Your task to perform on an android device: toggle pop-ups in chrome Image 0: 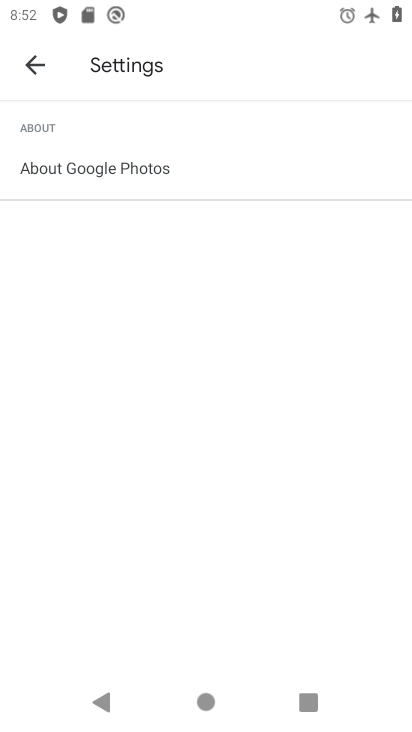
Step 0: press home button
Your task to perform on an android device: toggle pop-ups in chrome Image 1: 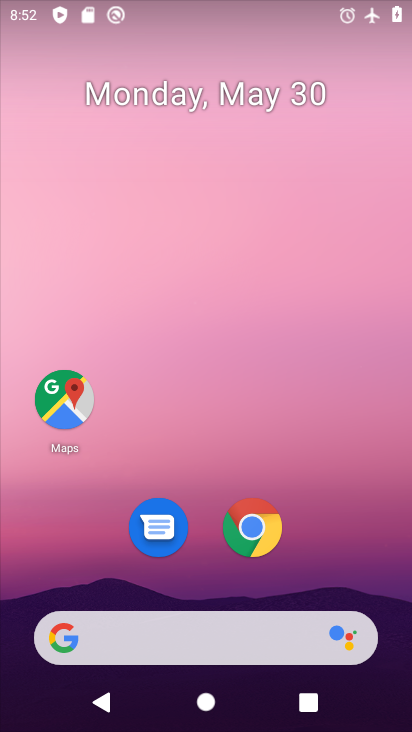
Step 1: drag from (268, 614) to (388, 9)
Your task to perform on an android device: toggle pop-ups in chrome Image 2: 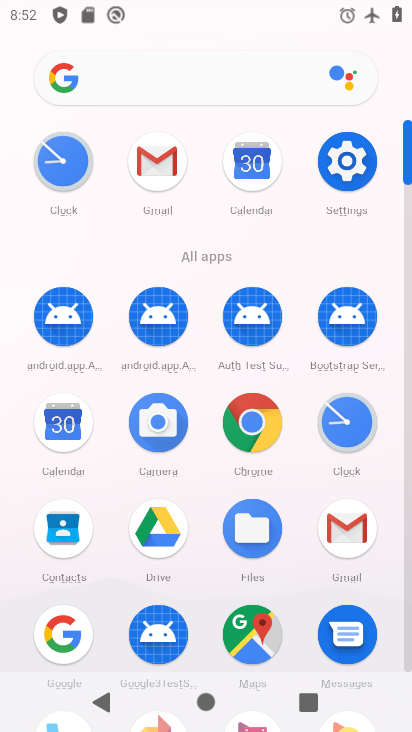
Step 2: click (258, 409)
Your task to perform on an android device: toggle pop-ups in chrome Image 3: 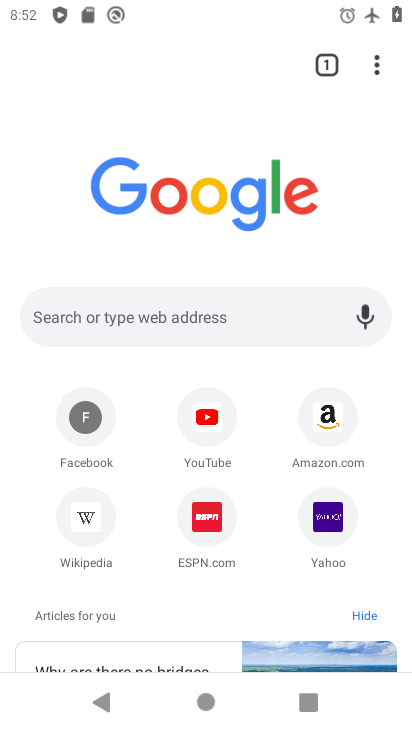
Step 3: click (382, 45)
Your task to perform on an android device: toggle pop-ups in chrome Image 4: 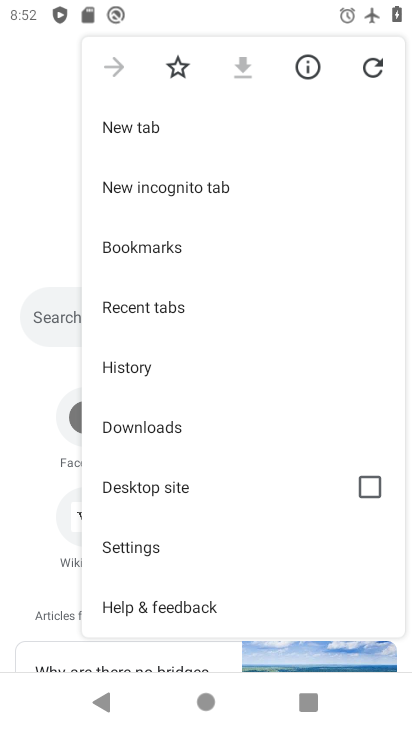
Step 4: click (146, 548)
Your task to perform on an android device: toggle pop-ups in chrome Image 5: 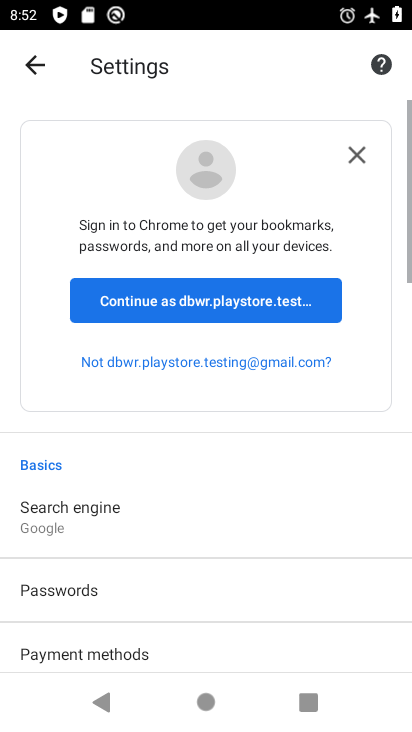
Step 5: drag from (143, 660) to (214, 210)
Your task to perform on an android device: toggle pop-ups in chrome Image 6: 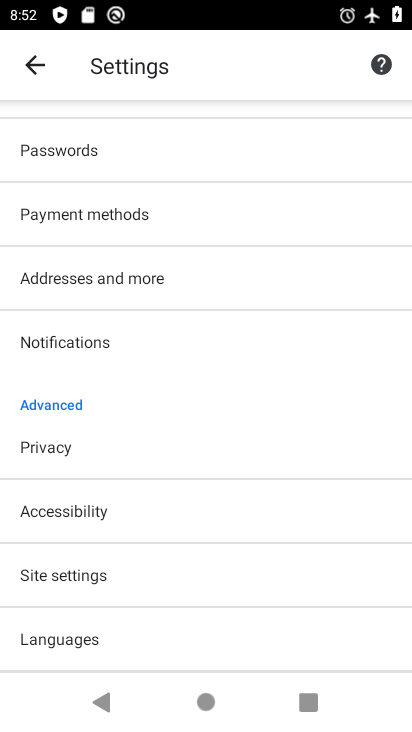
Step 6: click (140, 577)
Your task to perform on an android device: toggle pop-ups in chrome Image 7: 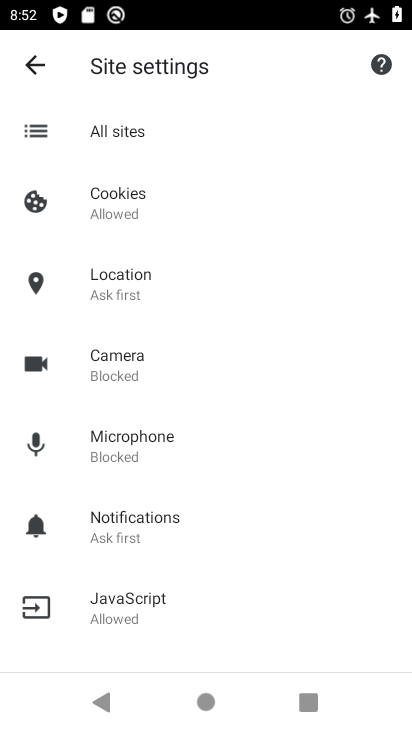
Step 7: drag from (176, 622) to (245, 276)
Your task to perform on an android device: toggle pop-ups in chrome Image 8: 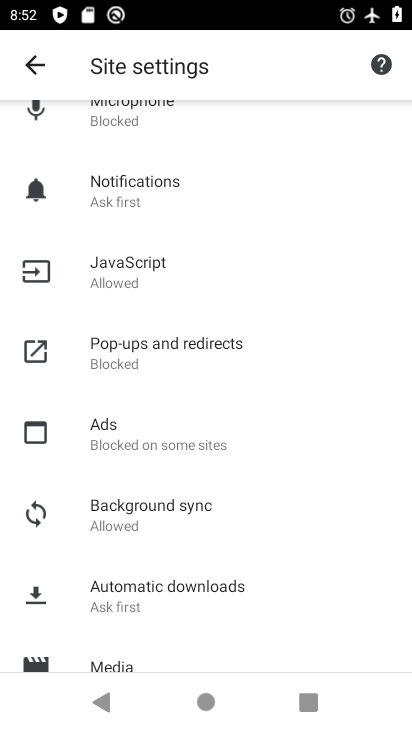
Step 8: click (211, 350)
Your task to perform on an android device: toggle pop-ups in chrome Image 9: 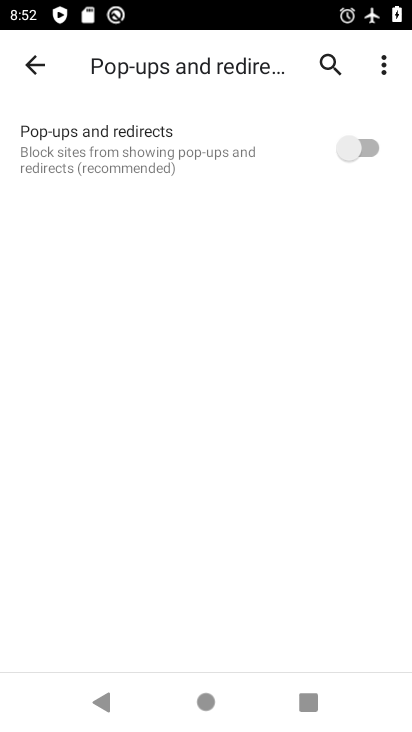
Step 9: click (369, 151)
Your task to perform on an android device: toggle pop-ups in chrome Image 10: 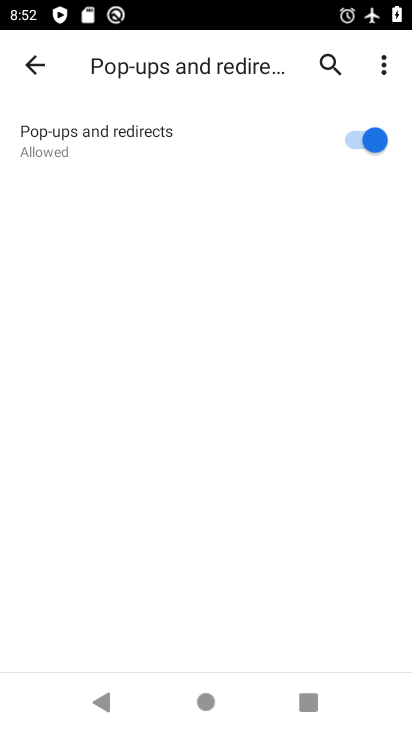
Step 10: task complete